Your task to perform on an android device: Is it going to rain this weekend? Image 0: 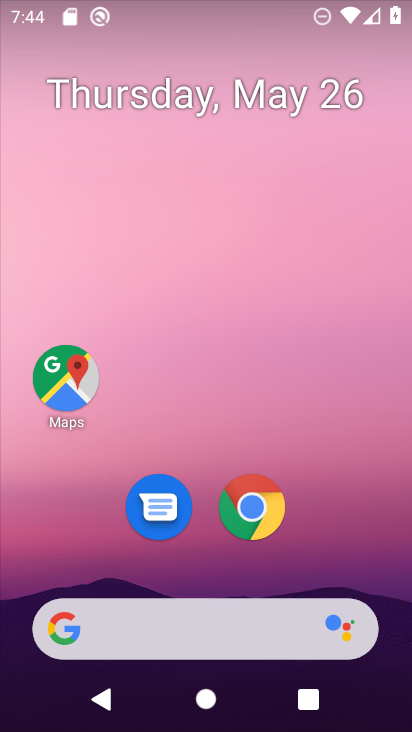
Step 0: click (139, 632)
Your task to perform on an android device: Is it going to rain this weekend? Image 1: 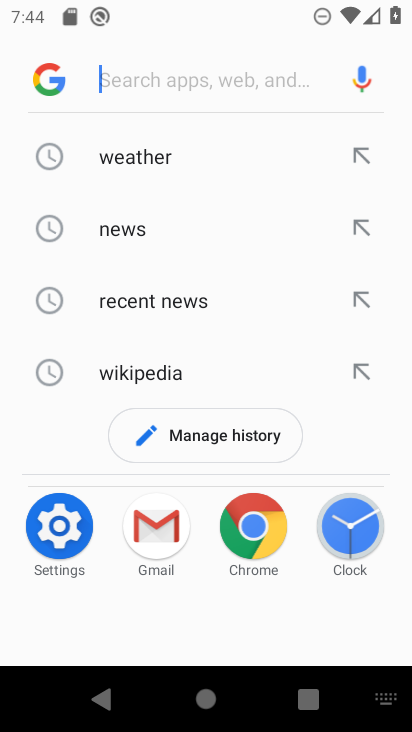
Step 1: click (121, 169)
Your task to perform on an android device: Is it going to rain this weekend? Image 2: 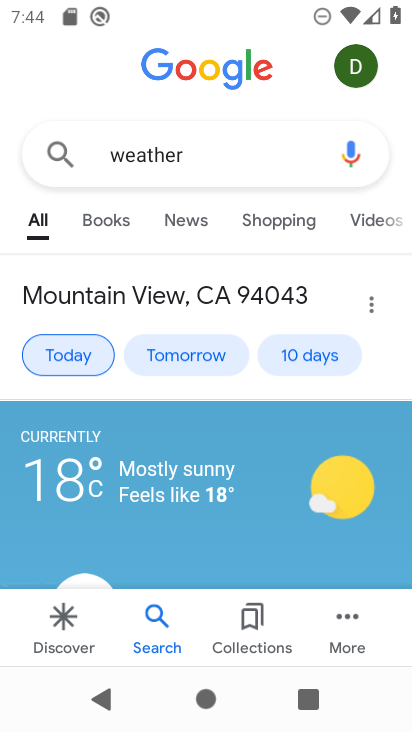
Step 2: click (346, 369)
Your task to perform on an android device: Is it going to rain this weekend? Image 3: 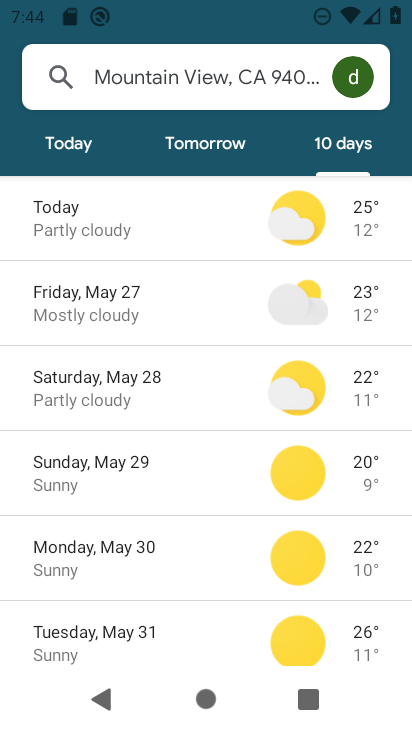
Step 3: task complete